Your task to perform on an android device: Show the shopping cart on costco. Image 0: 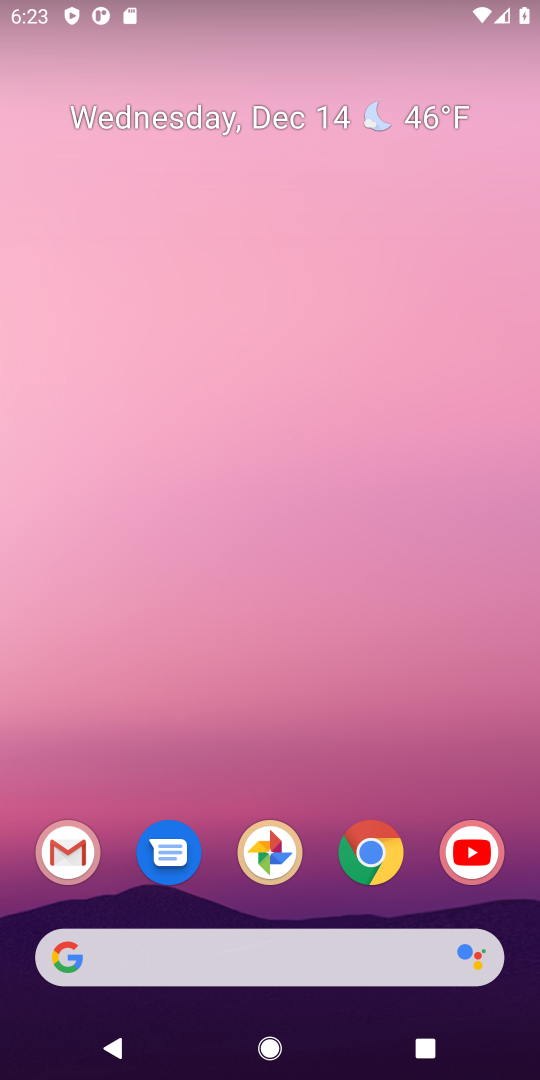
Step 0: click (367, 838)
Your task to perform on an android device: Show the shopping cart on costco. Image 1: 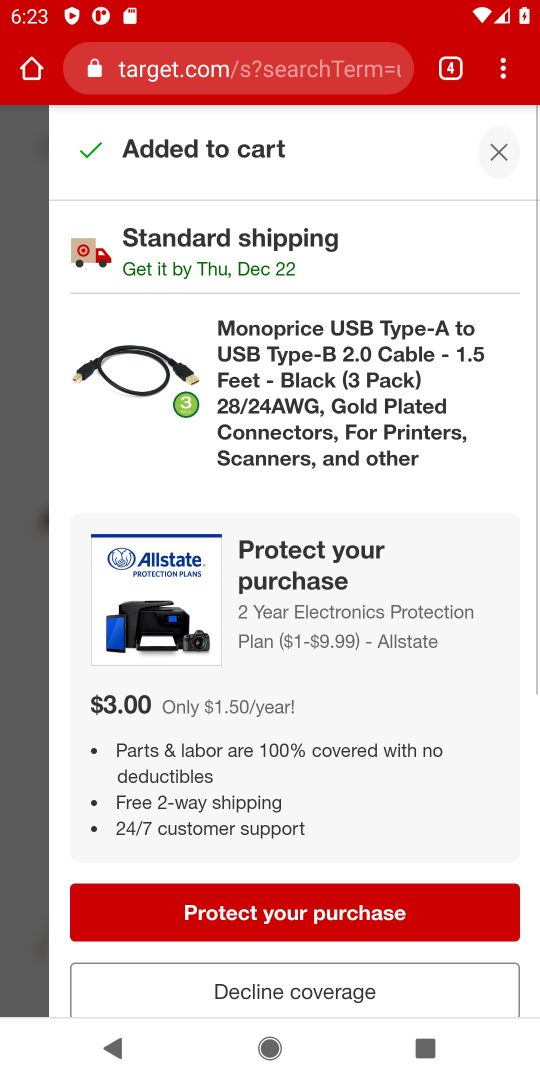
Step 1: click (450, 69)
Your task to perform on an android device: Show the shopping cart on costco. Image 2: 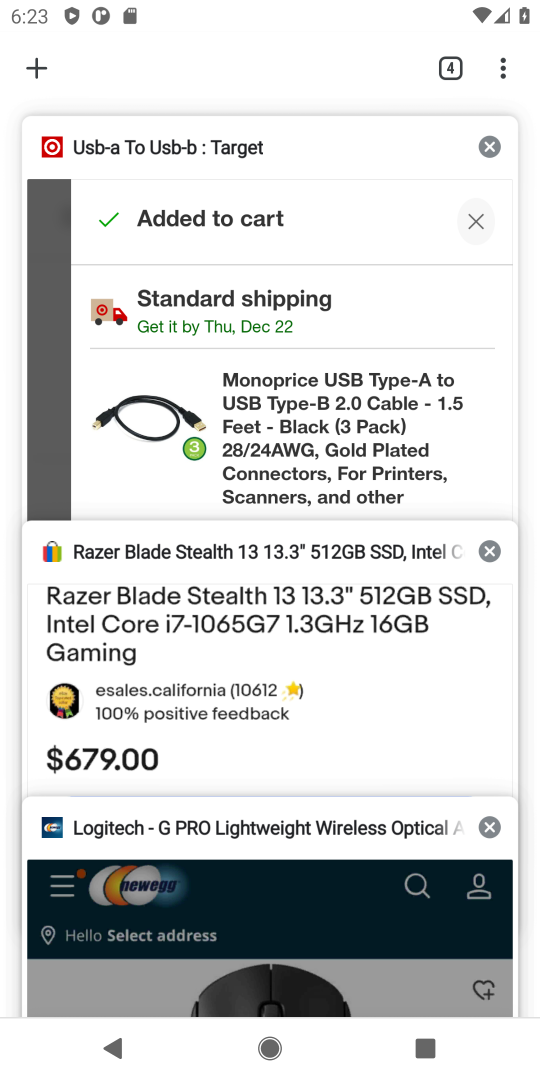
Step 2: drag from (258, 980) to (325, 661)
Your task to perform on an android device: Show the shopping cart on costco. Image 3: 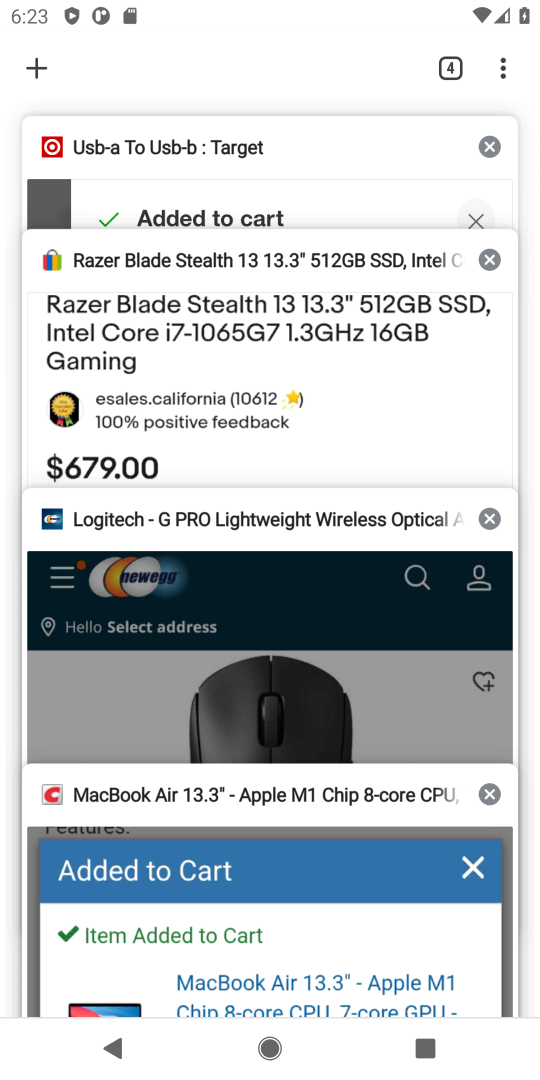
Step 3: click (289, 868)
Your task to perform on an android device: Show the shopping cart on costco. Image 4: 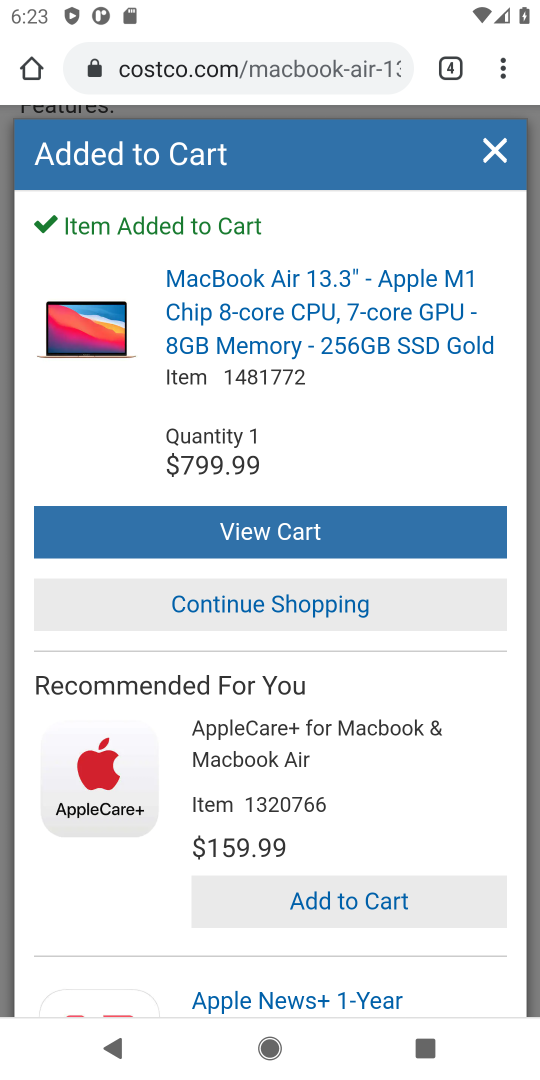
Step 4: click (302, 520)
Your task to perform on an android device: Show the shopping cart on costco. Image 5: 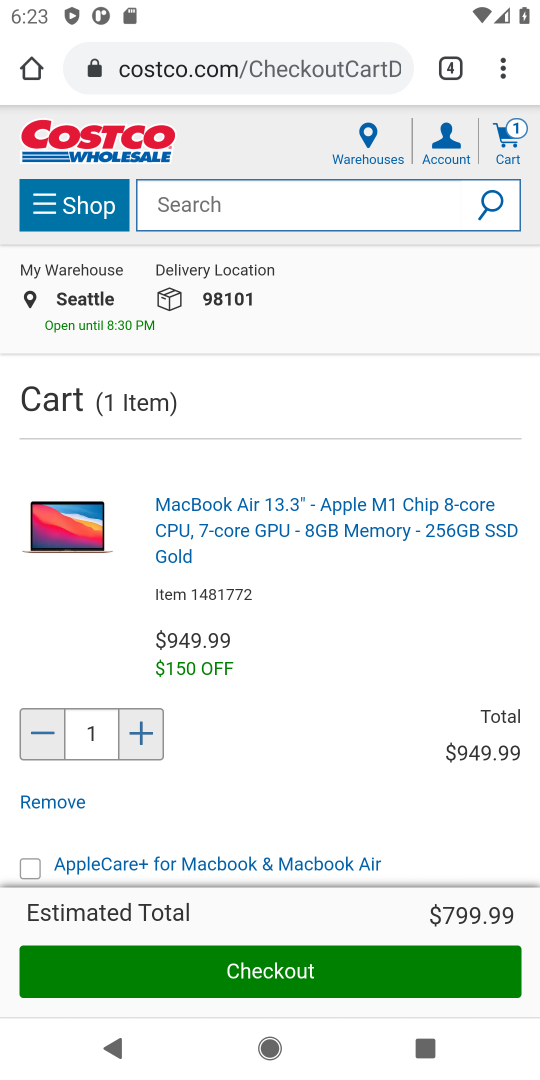
Step 5: task complete